Your task to perform on an android device: Open calendar and show me the first week of next month Image 0: 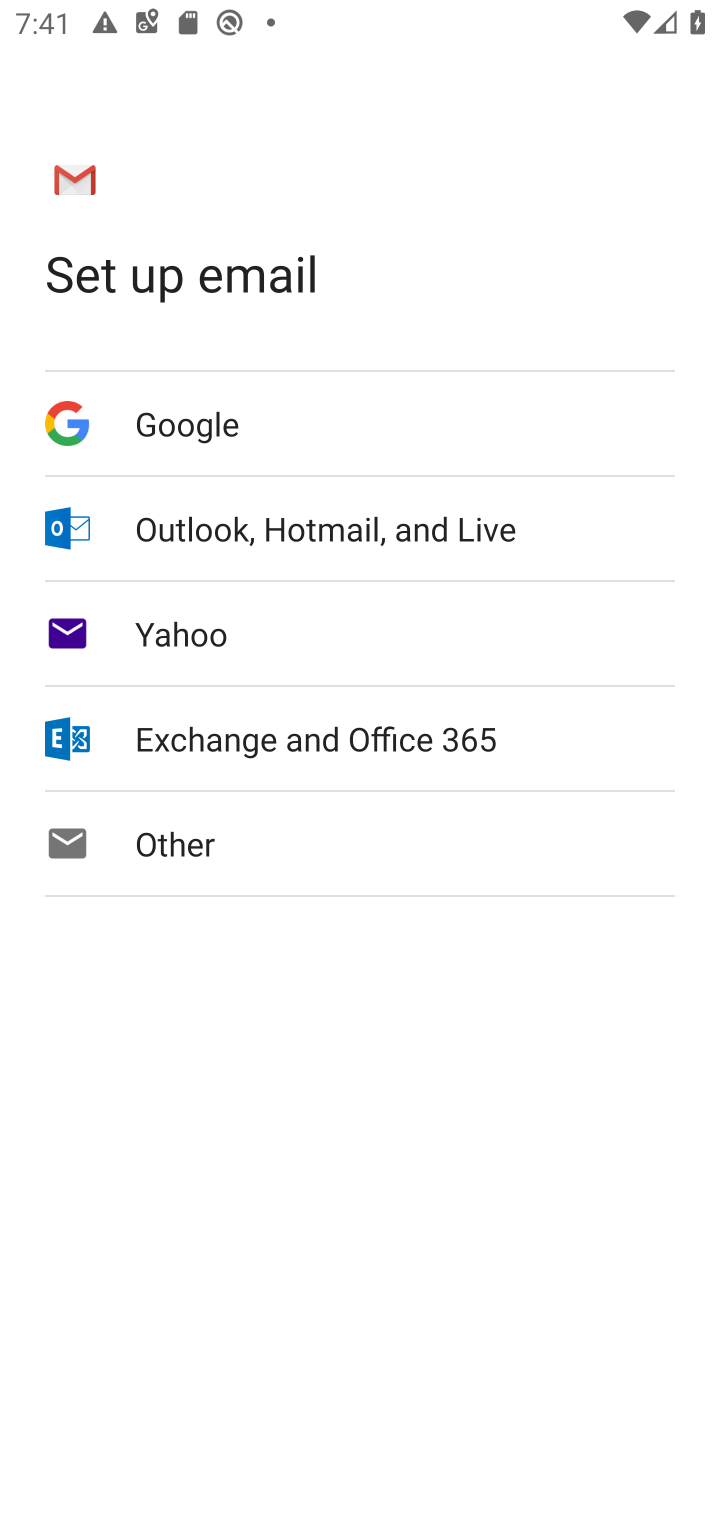
Step 0: press home button
Your task to perform on an android device: Open calendar and show me the first week of next month Image 1: 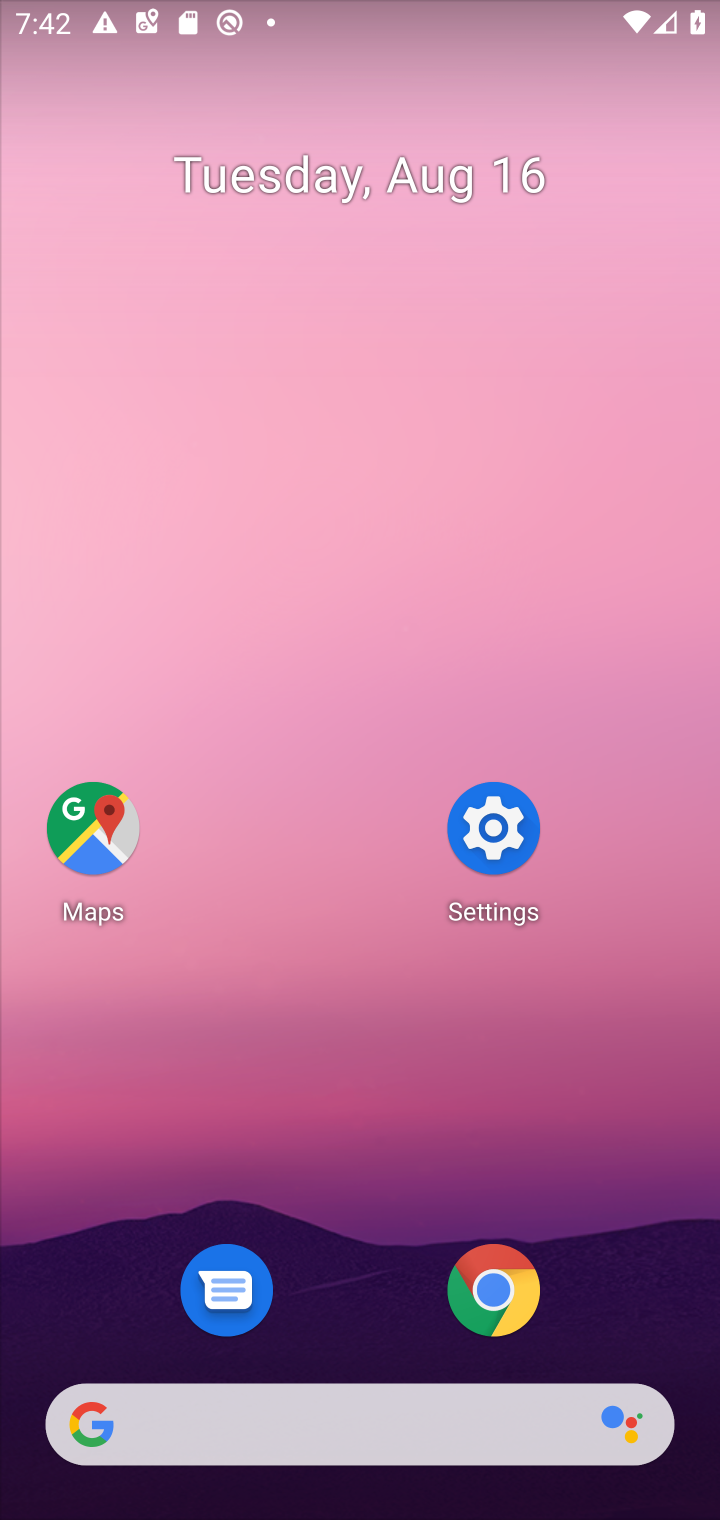
Step 1: drag from (311, 1415) to (334, 283)
Your task to perform on an android device: Open calendar and show me the first week of next month Image 2: 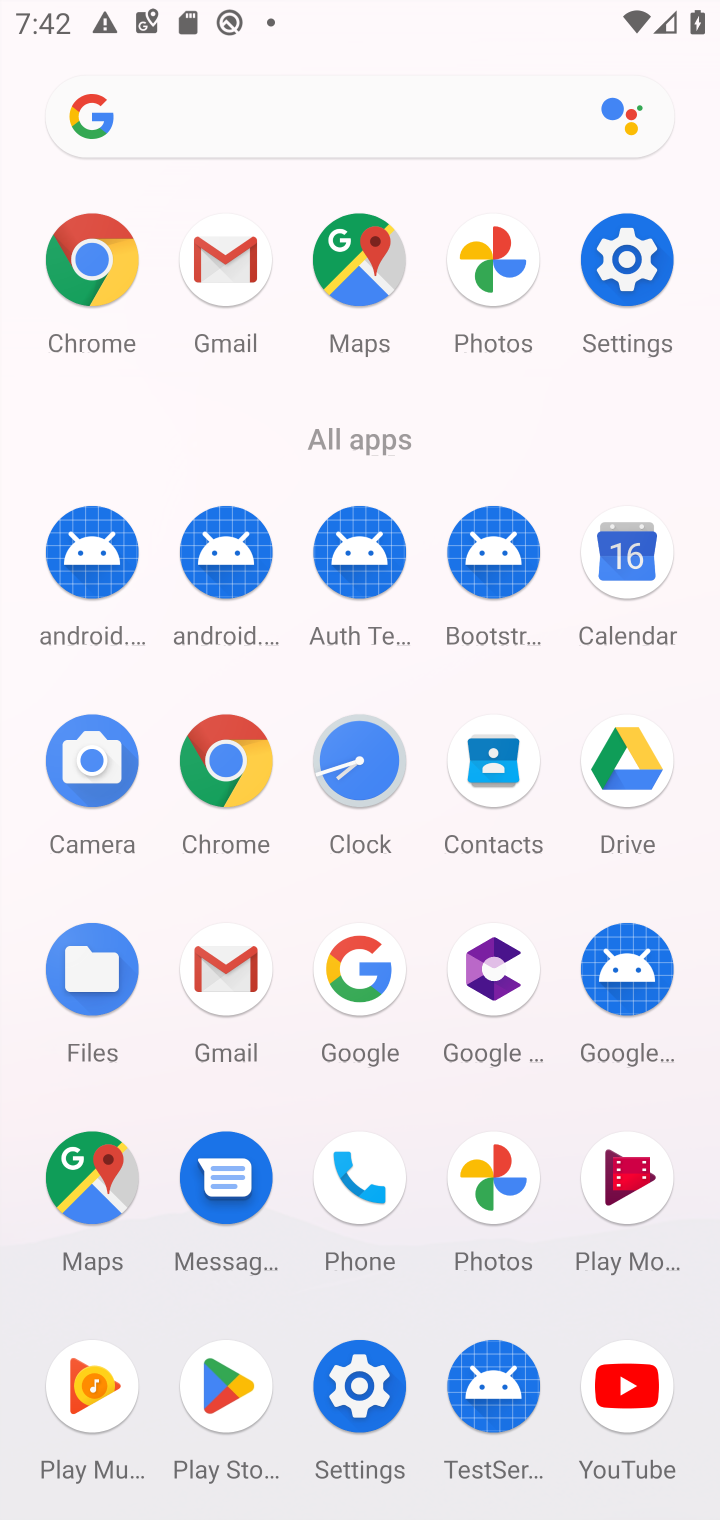
Step 2: click (650, 565)
Your task to perform on an android device: Open calendar and show me the first week of next month Image 3: 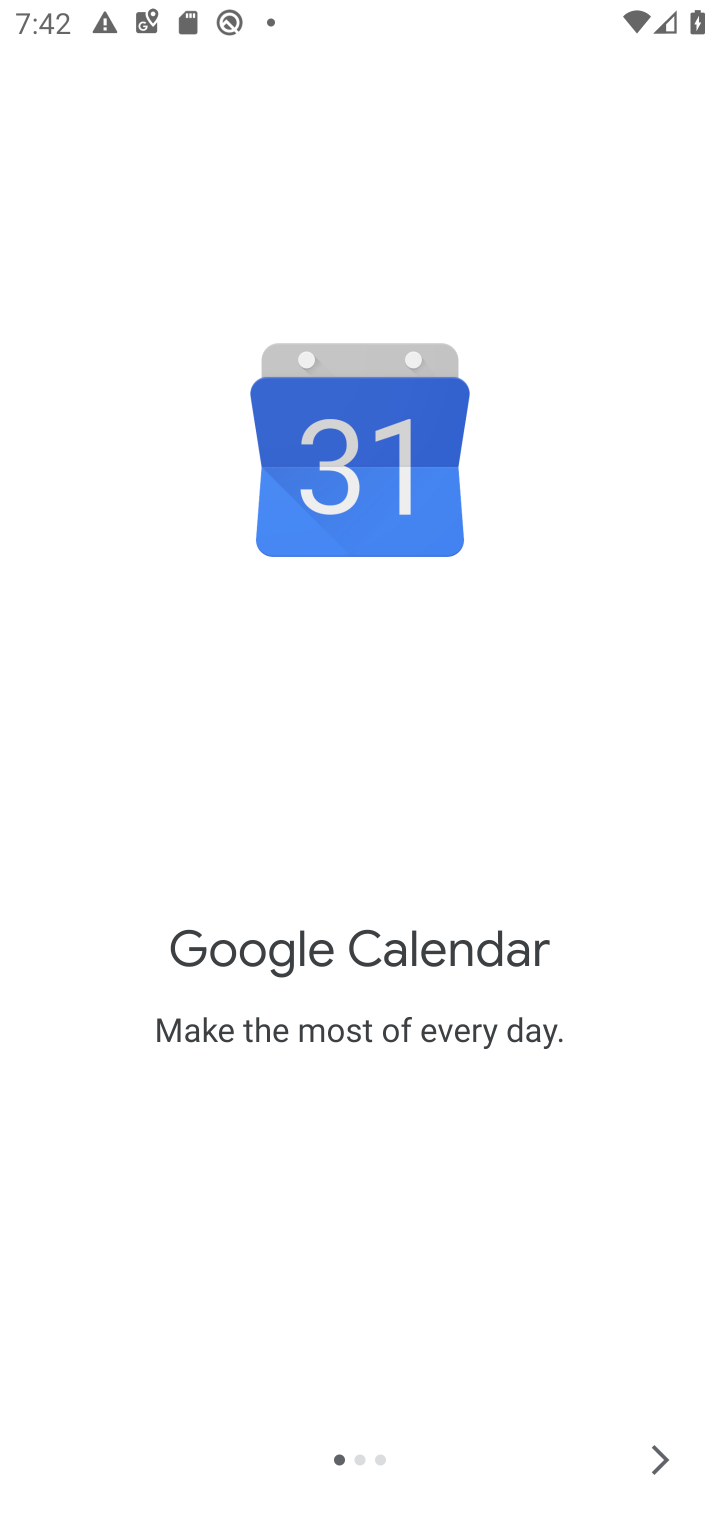
Step 3: click (659, 1452)
Your task to perform on an android device: Open calendar and show me the first week of next month Image 4: 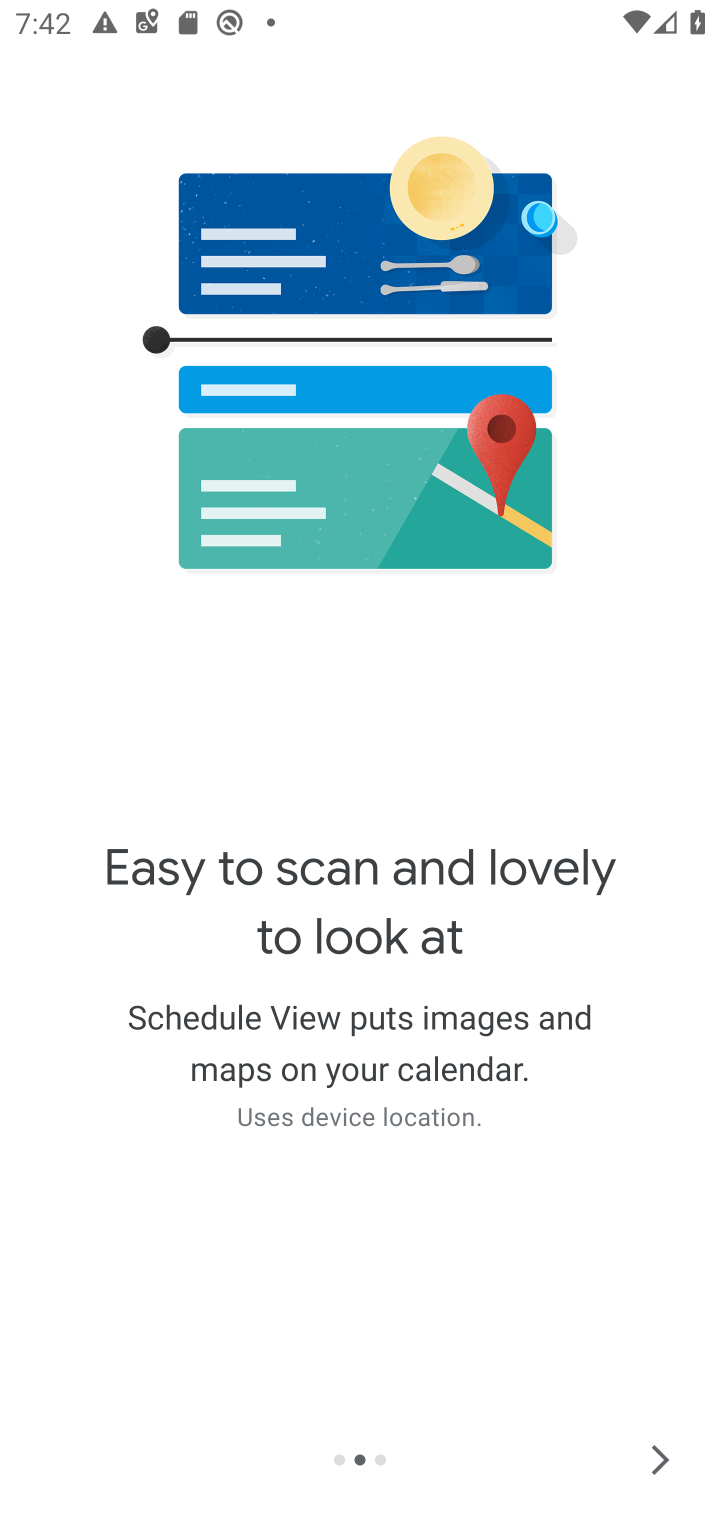
Step 4: click (659, 1452)
Your task to perform on an android device: Open calendar and show me the first week of next month Image 5: 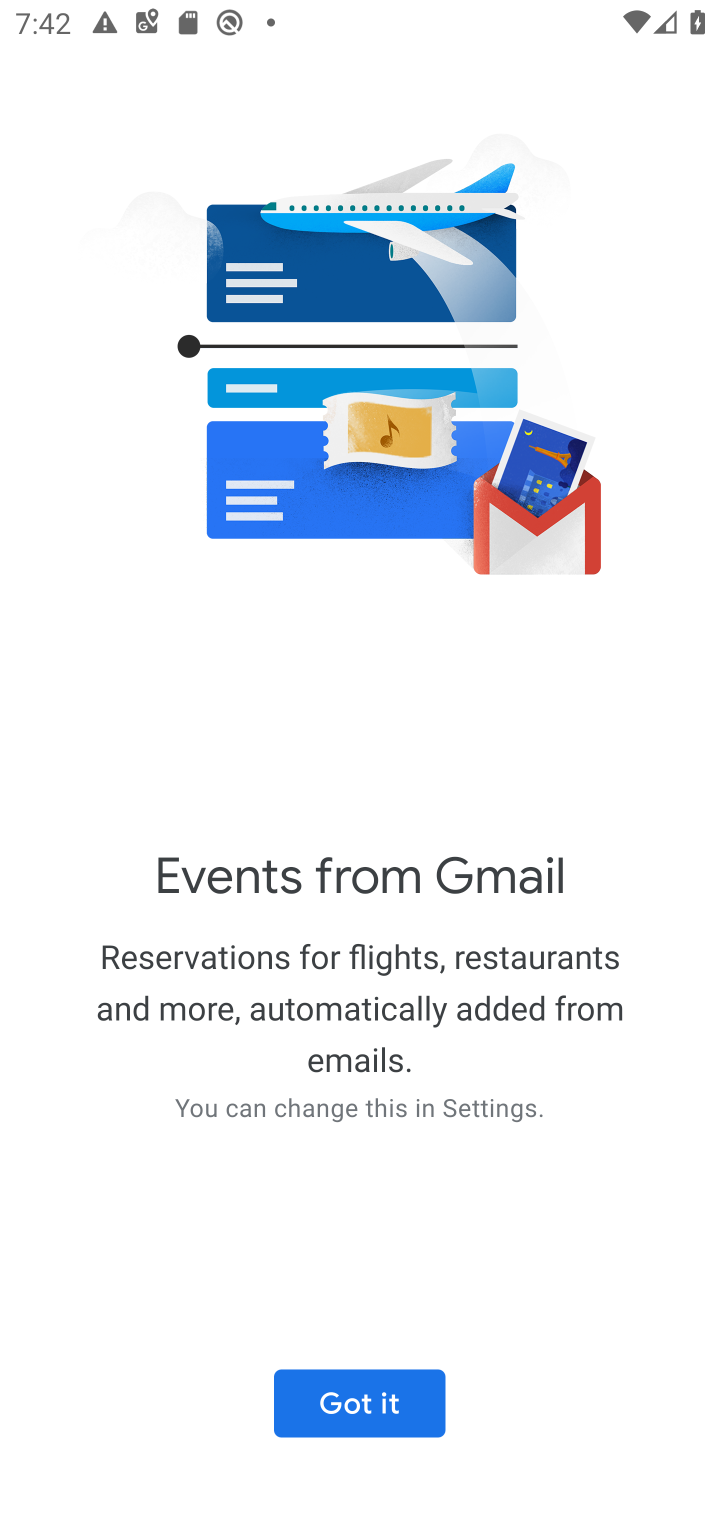
Step 5: click (337, 1405)
Your task to perform on an android device: Open calendar and show me the first week of next month Image 6: 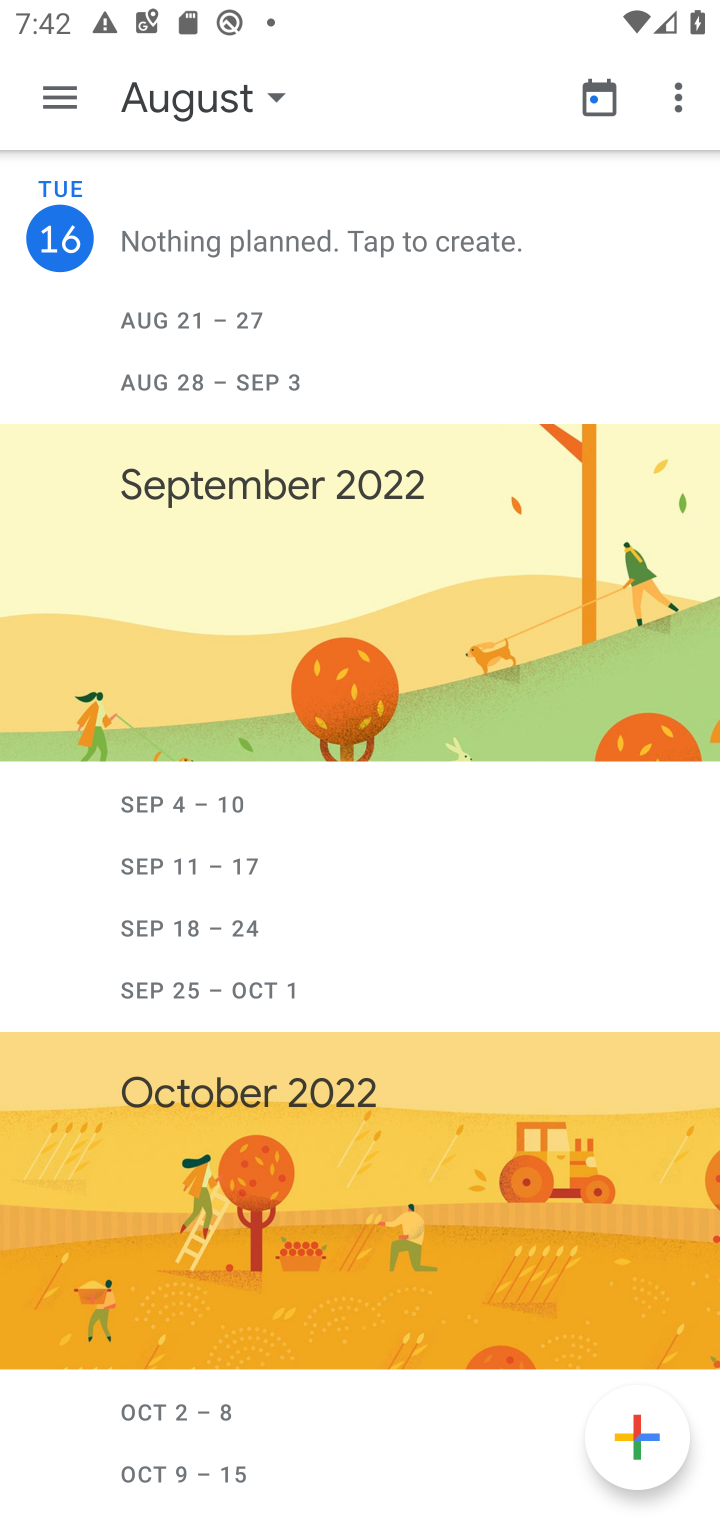
Step 6: drag from (248, 692) to (335, 282)
Your task to perform on an android device: Open calendar and show me the first week of next month Image 7: 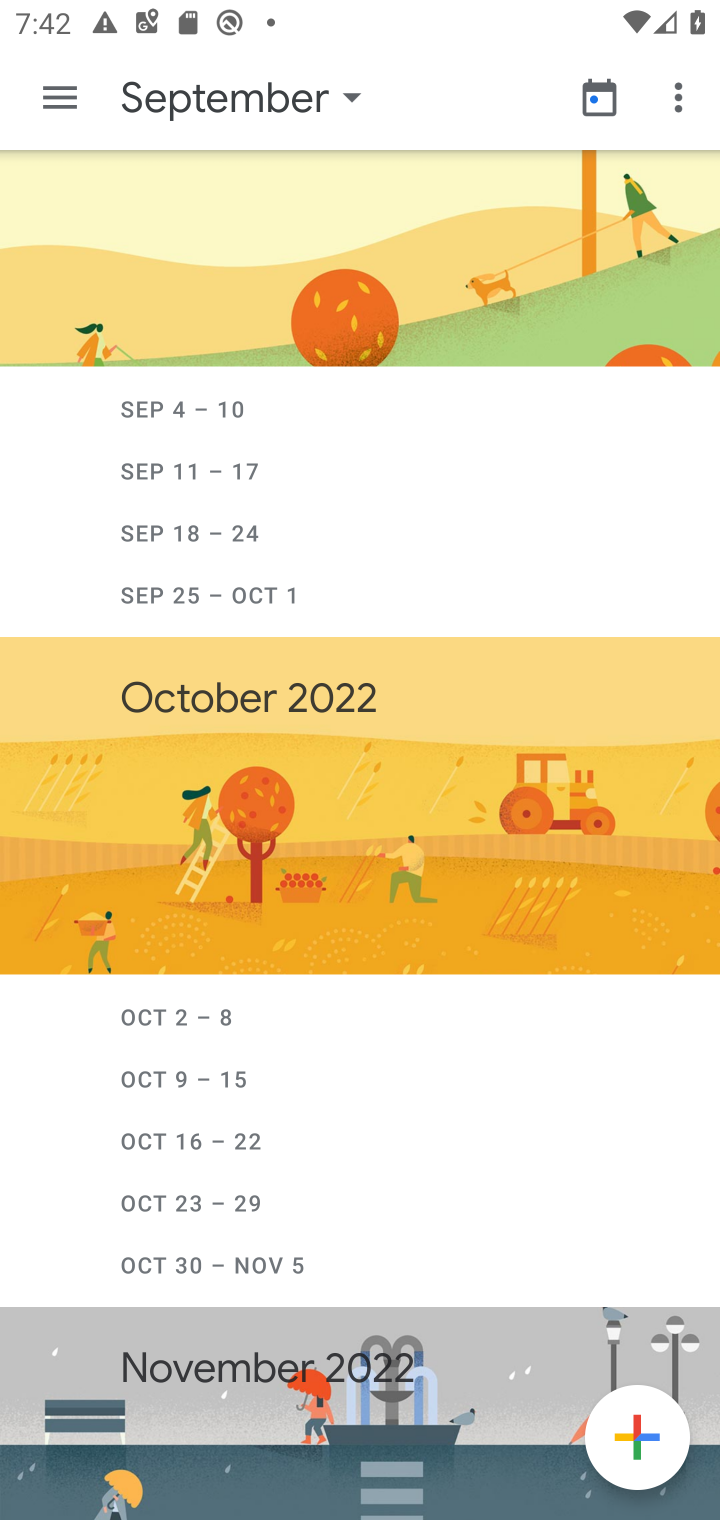
Step 7: click (193, 92)
Your task to perform on an android device: Open calendar and show me the first week of next month Image 8: 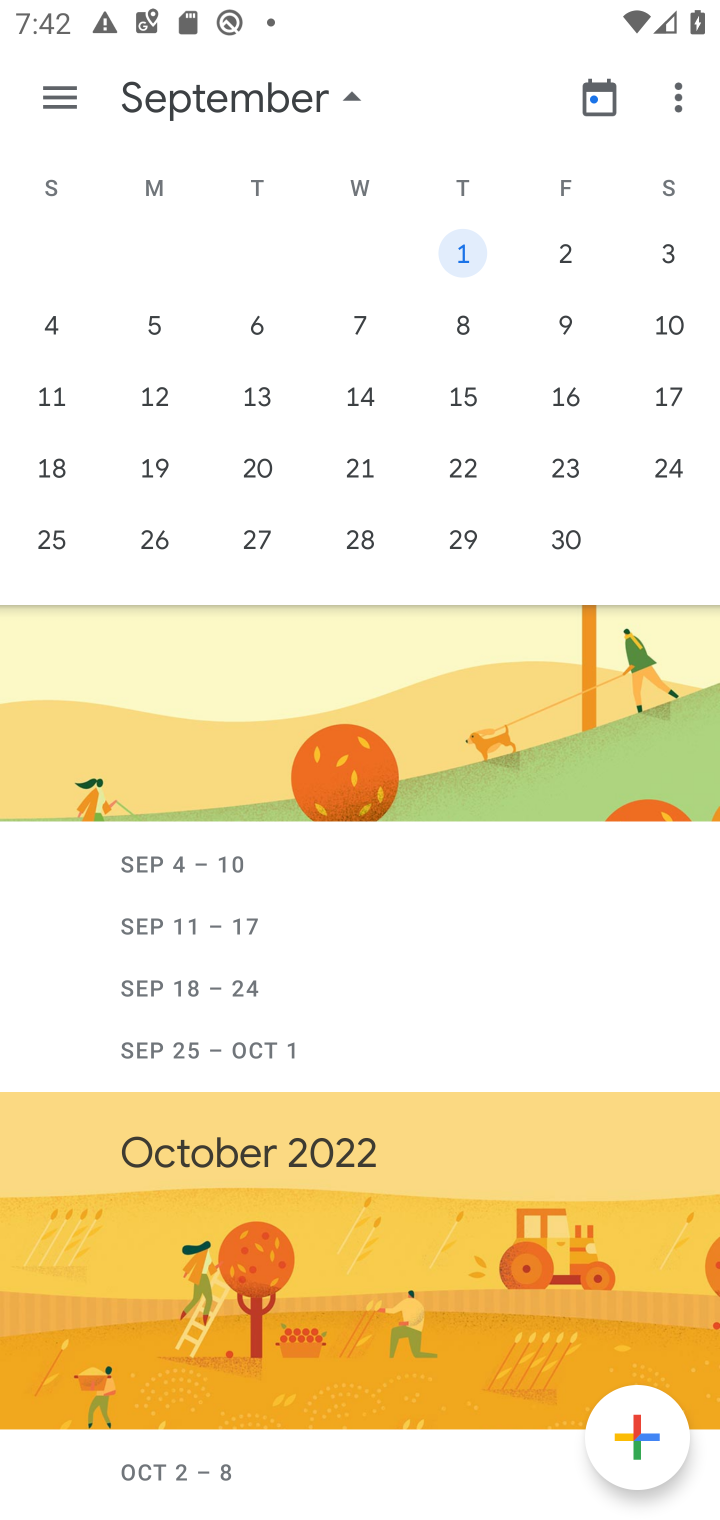
Step 8: click (461, 249)
Your task to perform on an android device: Open calendar and show me the first week of next month Image 9: 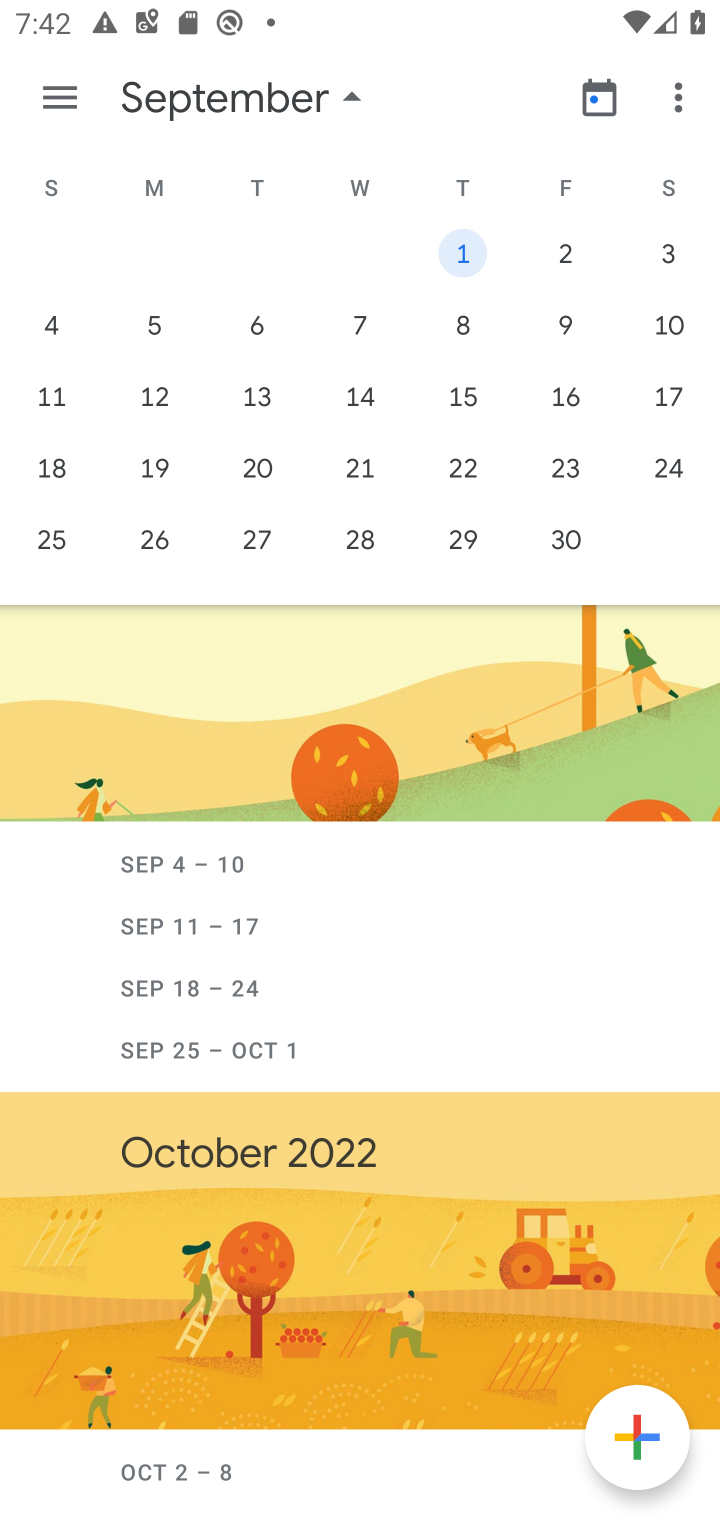
Step 9: click (41, 92)
Your task to perform on an android device: Open calendar and show me the first week of next month Image 10: 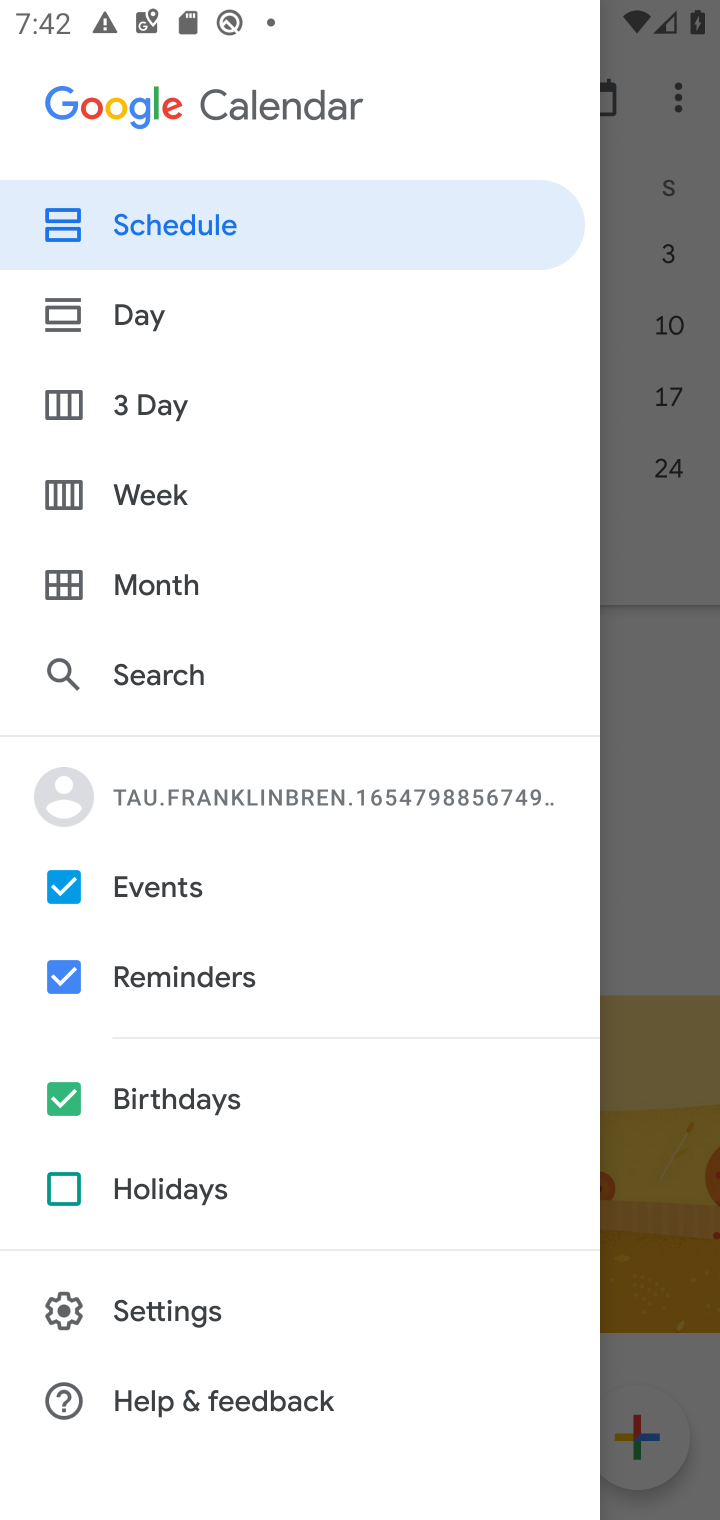
Step 10: click (154, 505)
Your task to perform on an android device: Open calendar and show me the first week of next month Image 11: 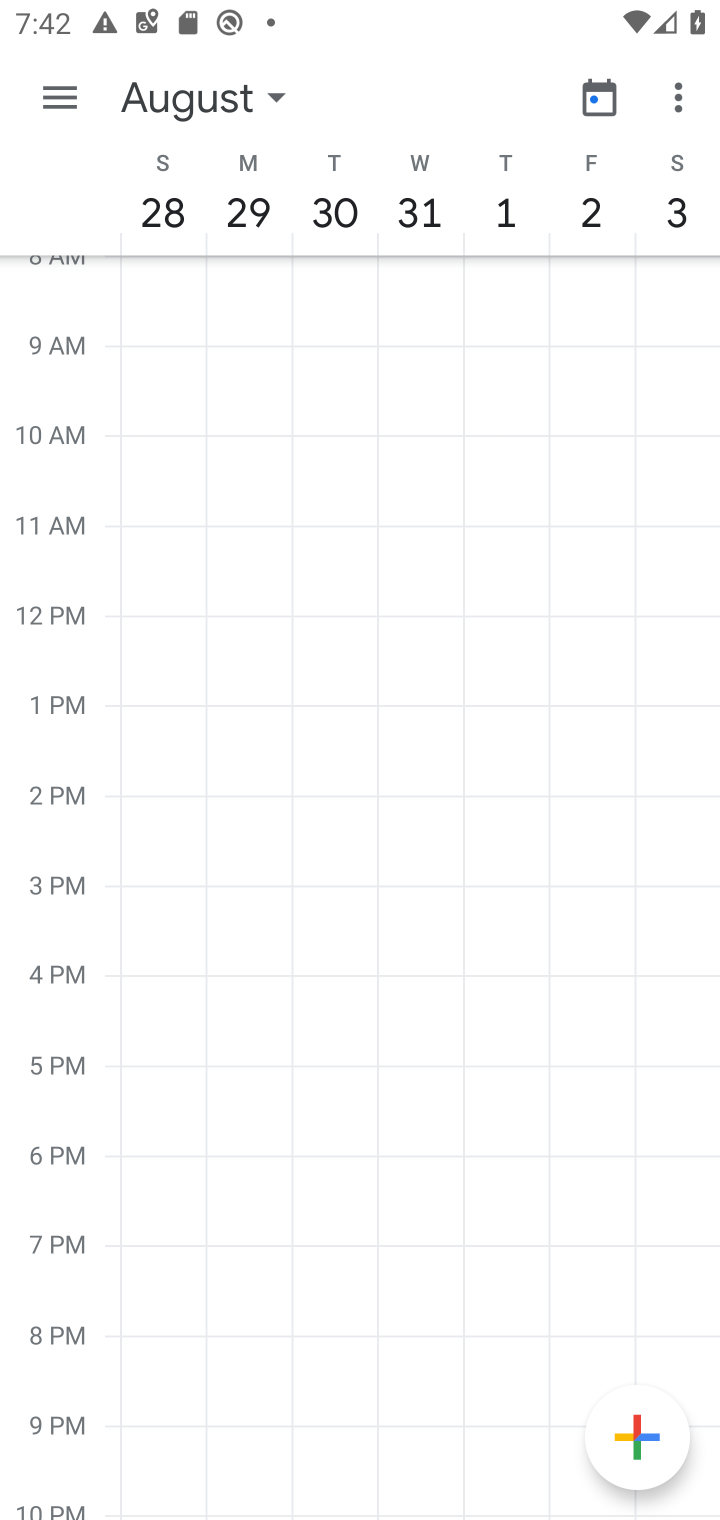
Step 11: task complete